Your task to perform on an android device: open device folders in google photos Image 0: 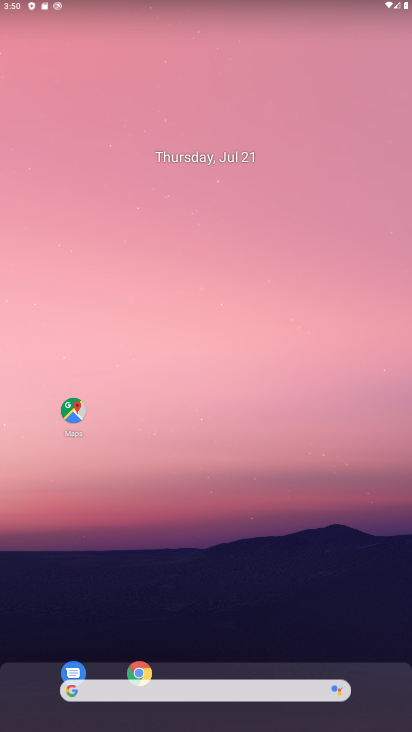
Step 0: drag from (190, 699) to (213, 230)
Your task to perform on an android device: open device folders in google photos Image 1: 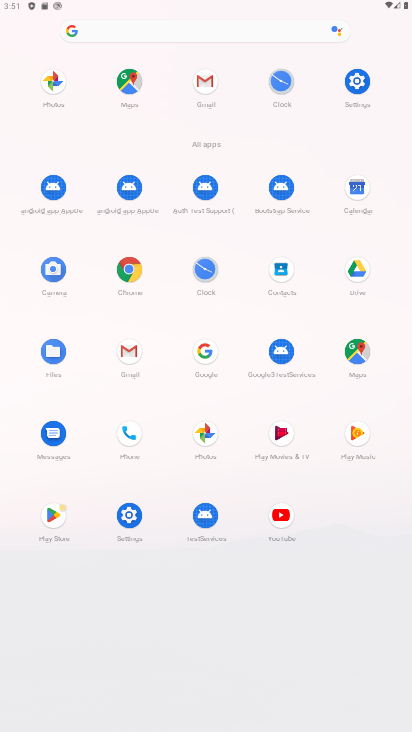
Step 1: click (208, 430)
Your task to perform on an android device: open device folders in google photos Image 2: 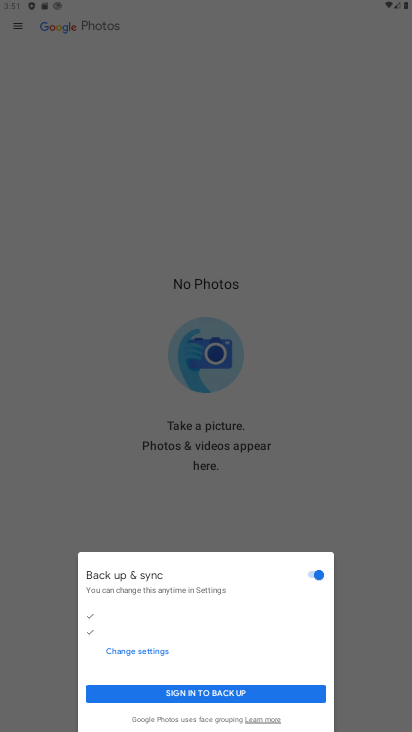
Step 2: click (185, 695)
Your task to perform on an android device: open device folders in google photos Image 3: 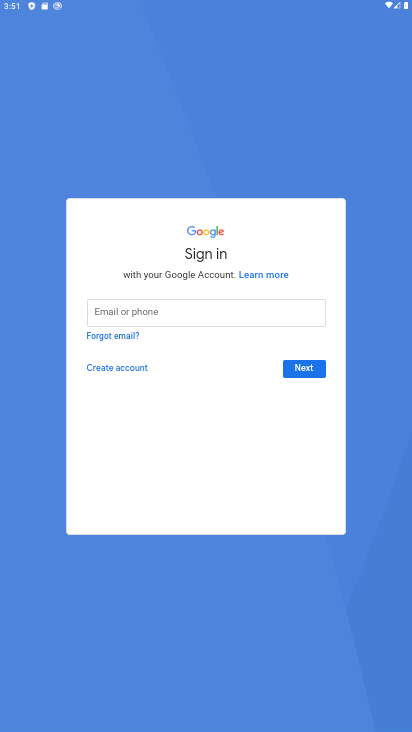
Step 3: click (312, 364)
Your task to perform on an android device: open device folders in google photos Image 4: 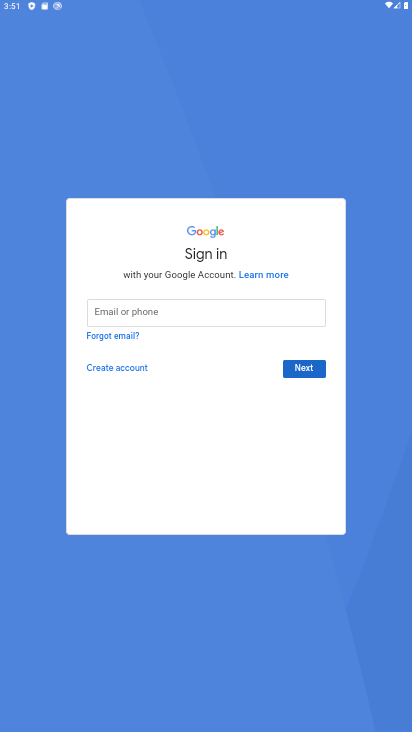
Step 4: click (308, 372)
Your task to perform on an android device: open device folders in google photos Image 5: 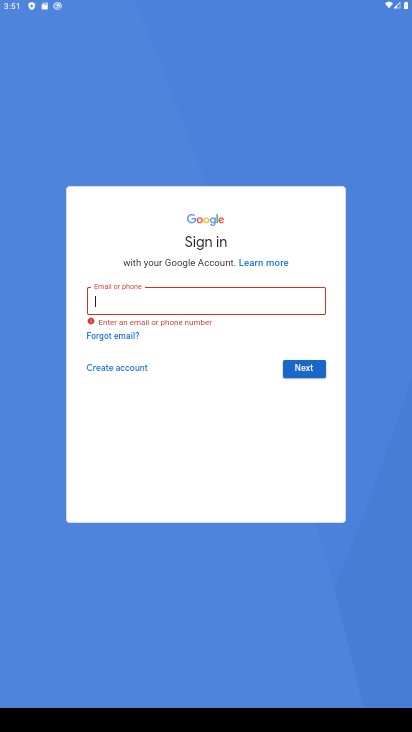
Step 5: click (119, 368)
Your task to perform on an android device: open device folders in google photos Image 6: 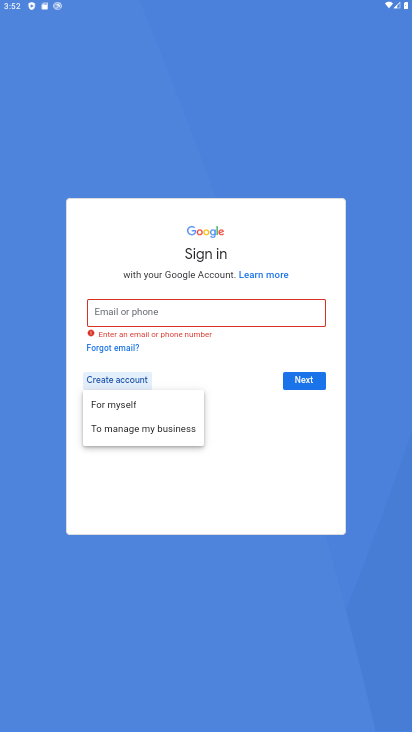
Step 6: task complete